Your task to perform on an android device: open the mobile data screen to see how much data has been used Image 0: 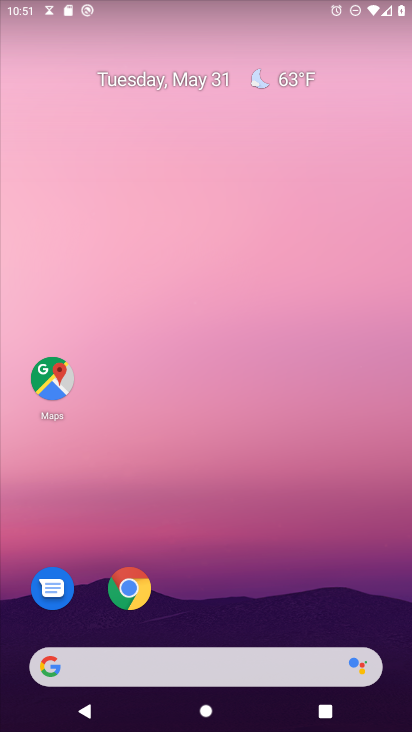
Step 0: drag from (298, 544) to (198, 87)
Your task to perform on an android device: open the mobile data screen to see how much data has been used Image 1: 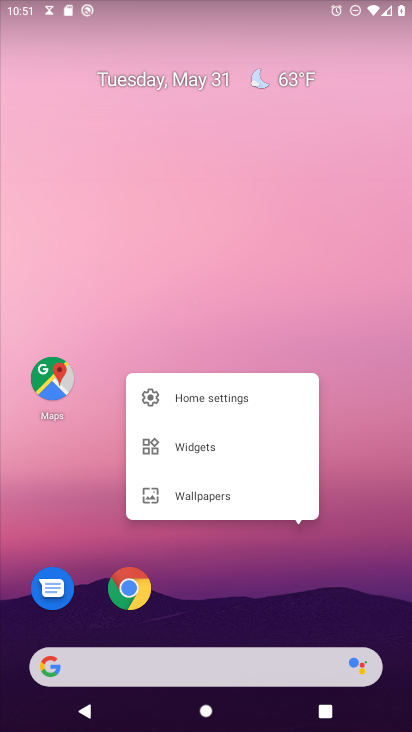
Step 1: click (296, 288)
Your task to perform on an android device: open the mobile data screen to see how much data has been used Image 2: 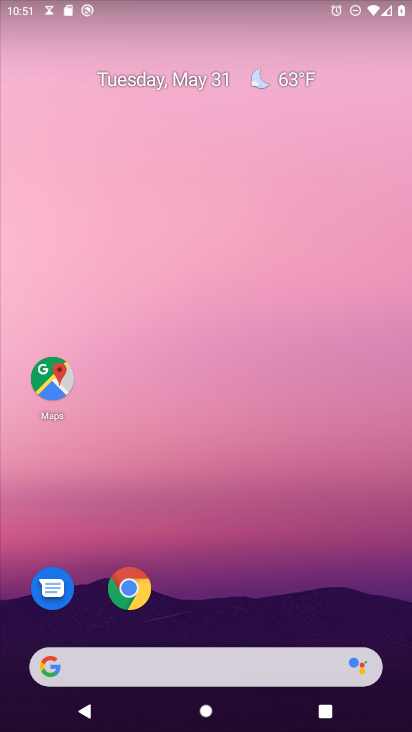
Step 2: drag from (284, 608) to (252, 125)
Your task to perform on an android device: open the mobile data screen to see how much data has been used Image 3: 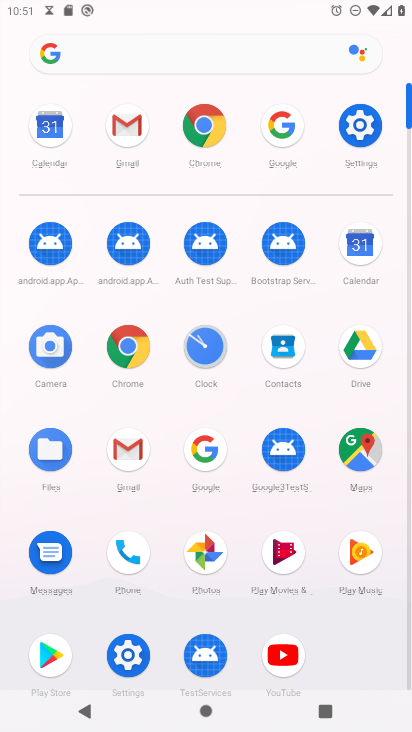
Step 3: click (360, 124)
Your task to perform on an android device: open the mobile data screen to see how much data has been used Image 4: 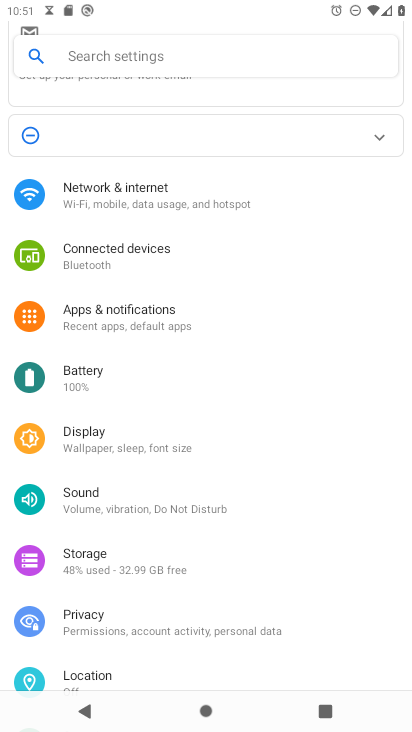
Step 4: click (189, 201)
Your task to perform on an android device: open the mobile data screen to see how much data has been used Image 5: 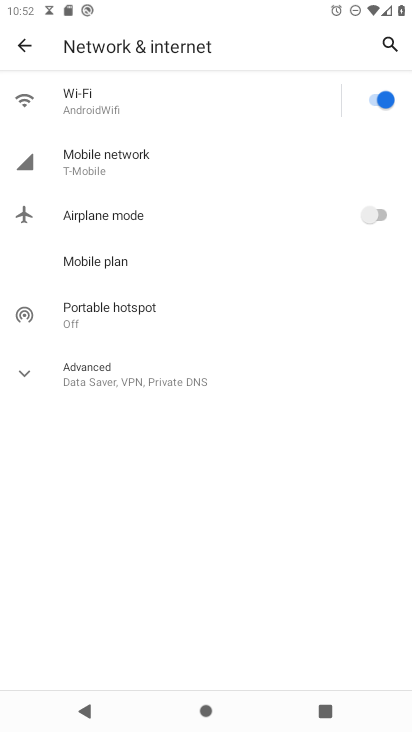
Step 5: click (125, 161)
Your task to perform on an android device: open the mobile data screen to see how much data has been used Image 6: 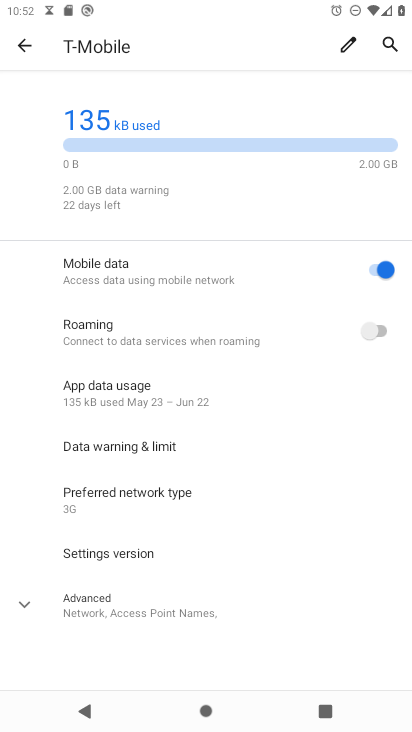
Step 6: task complete